Your task to perform on an android device: Open Amazon Image 0: 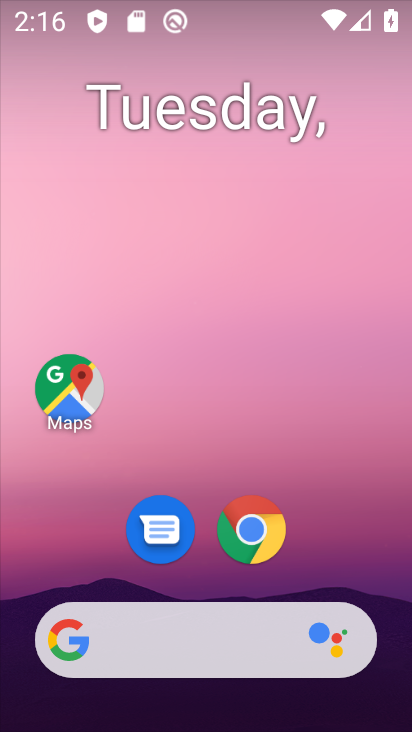
Step 0: click (261, 526)
Your task to perform on an android device: Open Amazon Image 1: 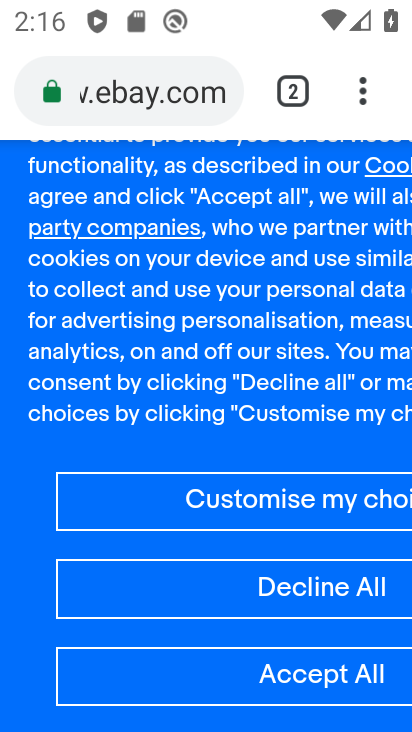
Step 1: click (153, 101)
Your task to perform on an android device: Open Amazon Image 2: 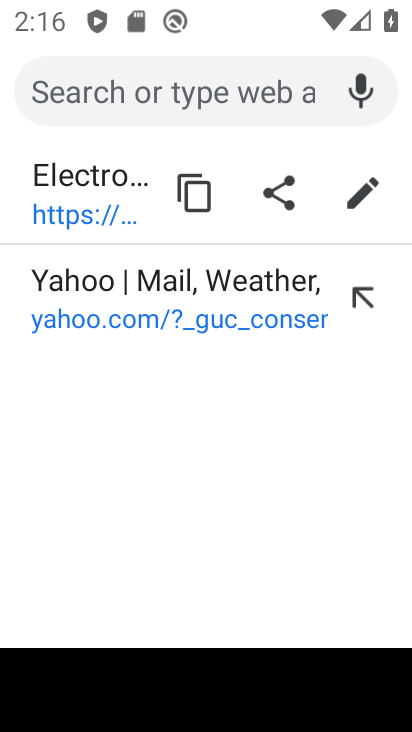
Step 2: type "amazon"
Your task to perform on an android device: Open Amazon Image 3: 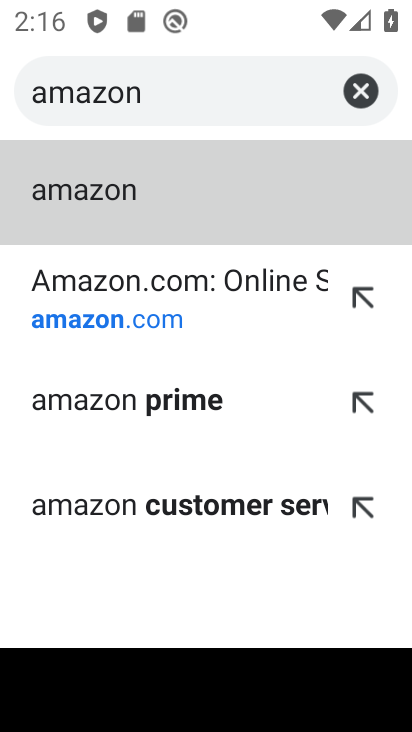
Step 3: click (78, 177)
Your task to perform on an android device: Open Amazon Image 4: 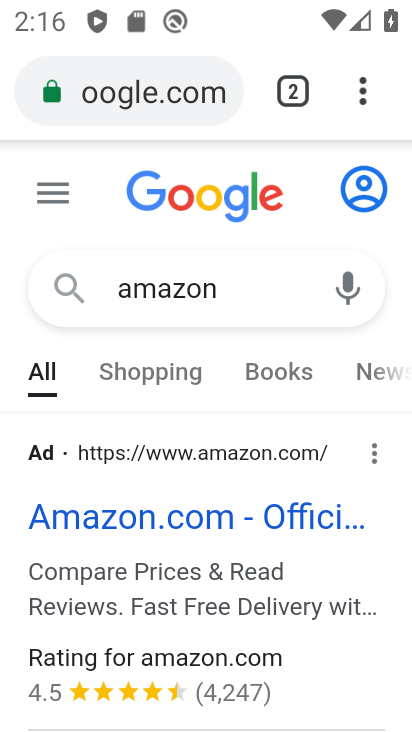
Step 4: click (74, 518)
Your task to perform on an android device: Open Amazon Image 5: 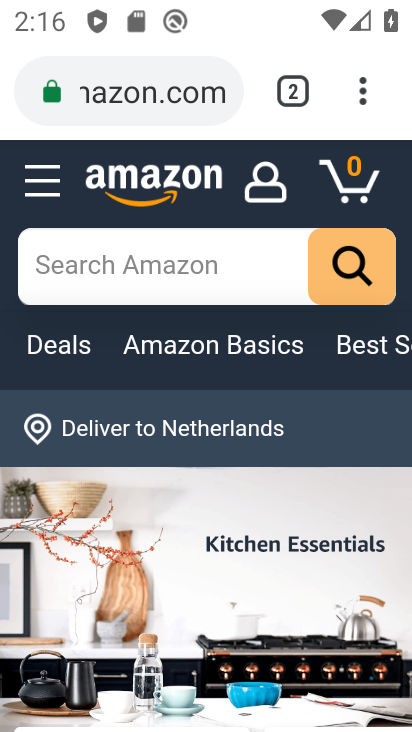
Step 5: task complete